Your task to perform on an android device: turn on the 12-hour format for clock Image 0: 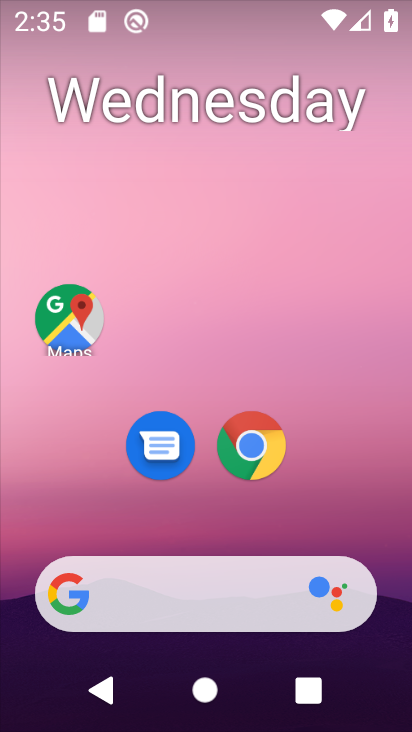
Step 0: drag from (365, 494) to (354, 0)
Your task to perform on an android device: turn on the 12-hour format for clock Image 1: 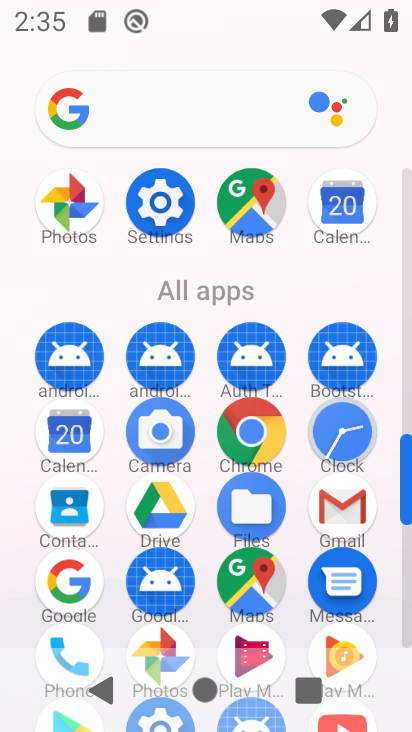
Step 1: click (342, 434)
Your task to perform on an android device: turn on the 12-hour format for clock Image 2: 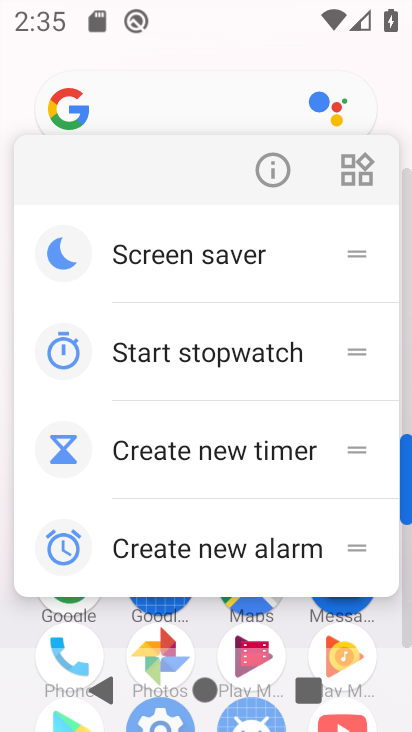
Step 2: click (405, 392)
Your task to perform on an android device: turn on the 12-hour format for clock Image 3: 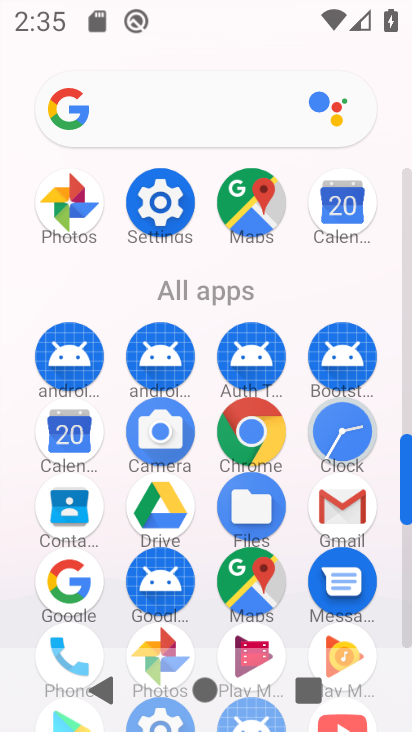
Step 3: click (352, 437)
Your task to perform on an android device: turn on the 12-hour format for clock Image 4: 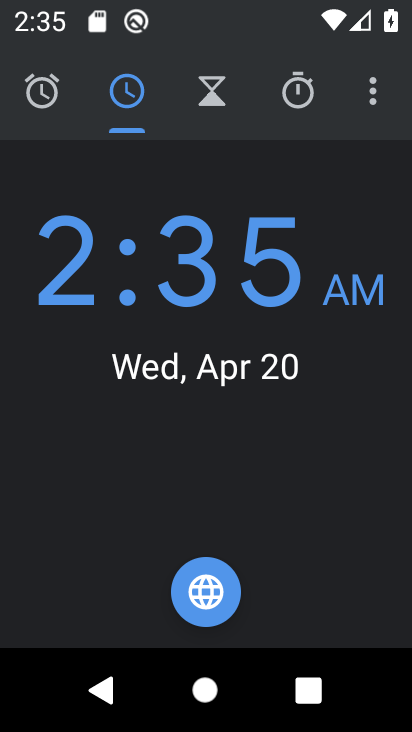
Step 4: click (374, 89)
Your task to perform on an android device: turn on the 12-hour format for clock Image 5: 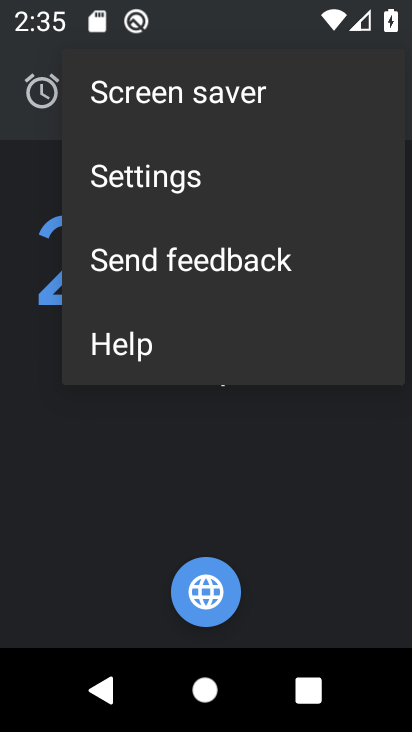
Step 5: click (153, 179)
Your task to perform on an android device: turn on the 12-hour format for clock Image 6: 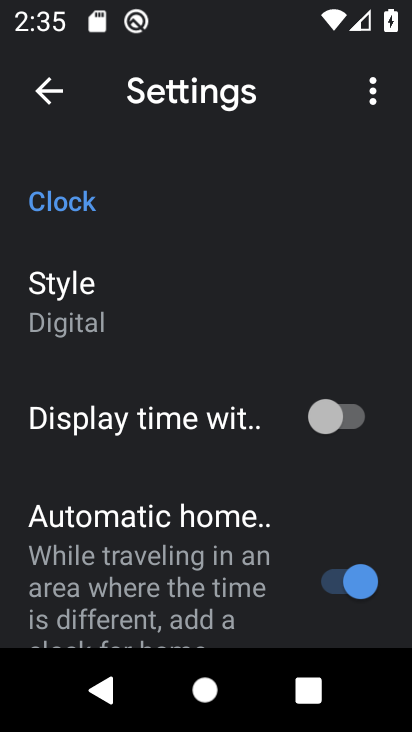
Step 6: drag from (184, 518) to (159, 179)
Your task to perform on an android device: turn on the 12-hour format for clock Image 7: 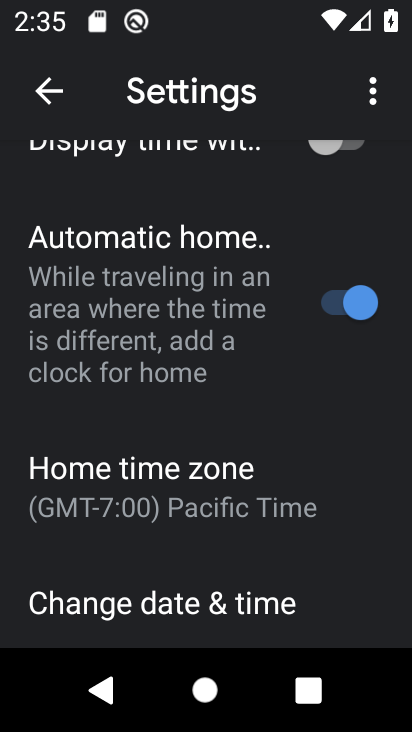
Step 7: drag from (166, 497) to (145, 214)
Your task to perform on an android device: turn on the 12-hour format for clock Image 8: 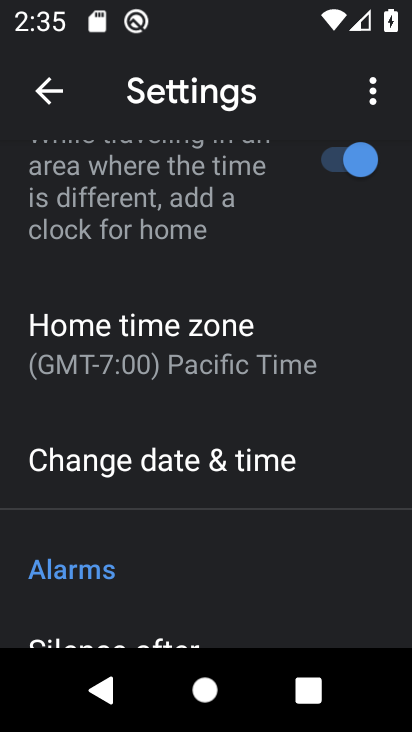
Step 8: click (127, 466)
Your task to perform on an android device: turn on the 12-hour format for clock Image 9: 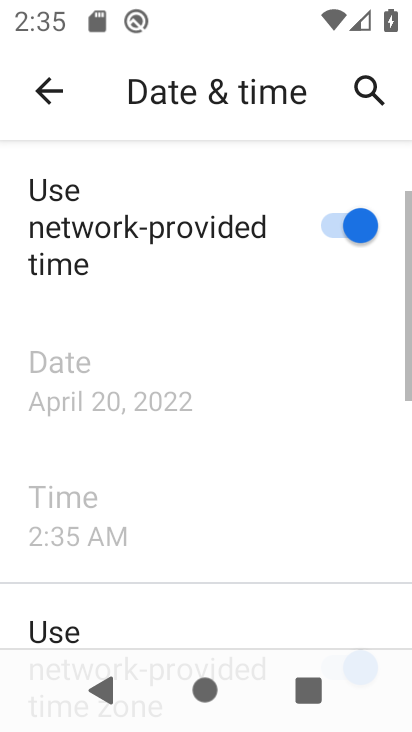
Step 9: task complete